Your task to perform on an android device: Show me popular videos on Youtube Image 0: 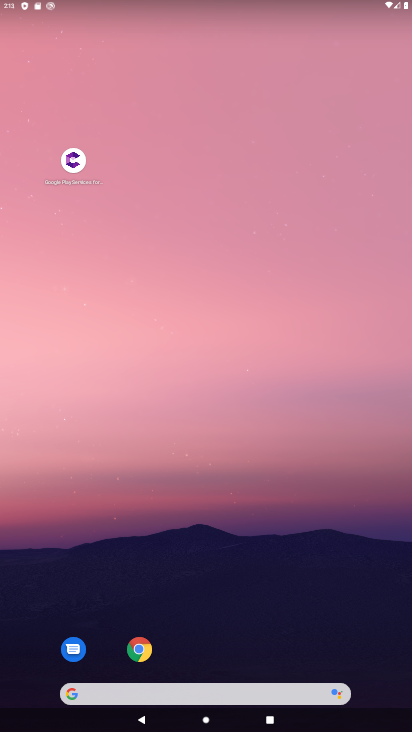
Step 0: press home button
Your task to perform on an android device: Show me popular videos on Youtube Image 1: 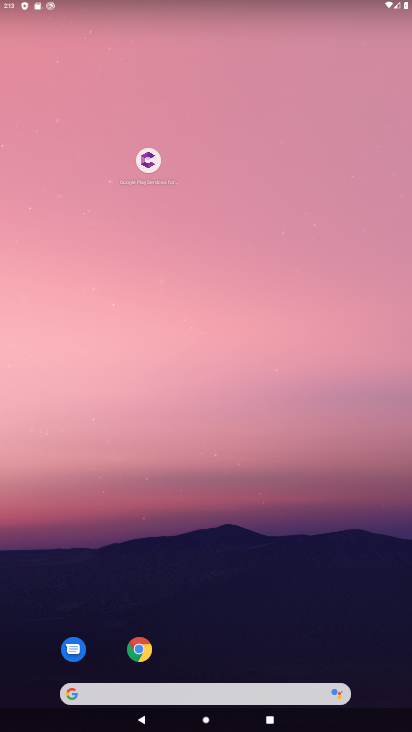
Step 1: press home button
Your task to perform on an android device: Show me popular videos on Youtube Image 2: 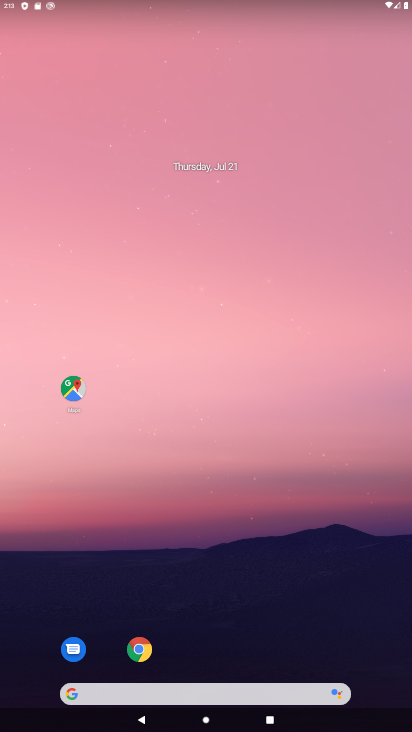
Step 2: press home button
Your task to perform on an android device: Show me popular videos on Youtube Image 3: 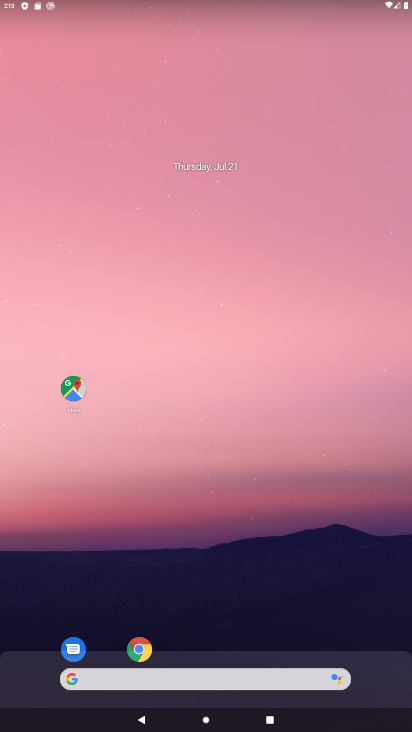
Step 3: drag from (203, 637) to (187, 139)
Your task to perform on an android device: Show me popular videos on Youtube Image 4: 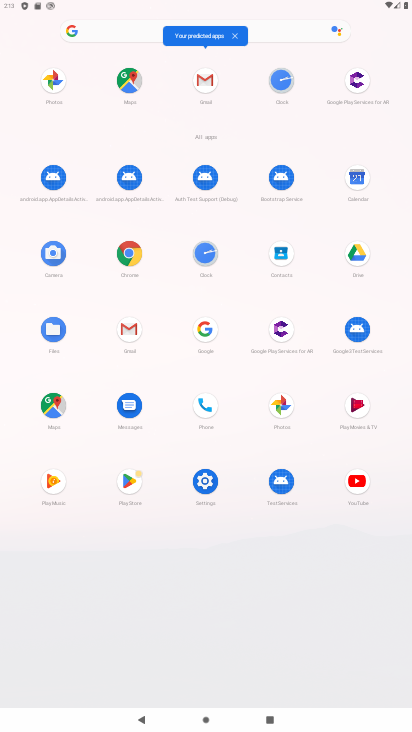
Step 4: click (344, 487)
Your task to perform on an android device: Show me popular videos on Youtube Image 5: 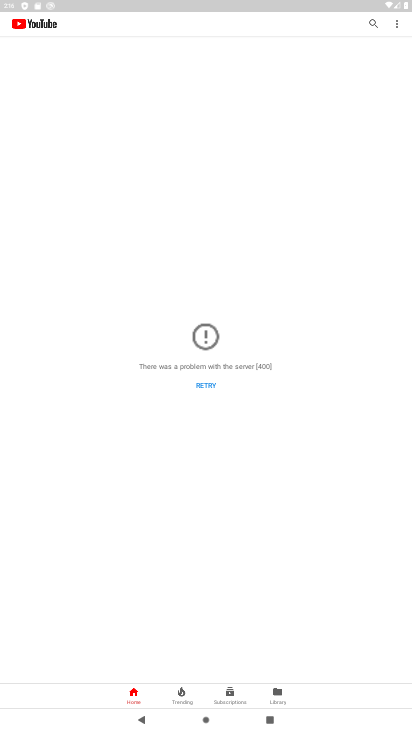
Step 5: task complete